Your task to perform on an android device: Do I have any events today? Image 0: 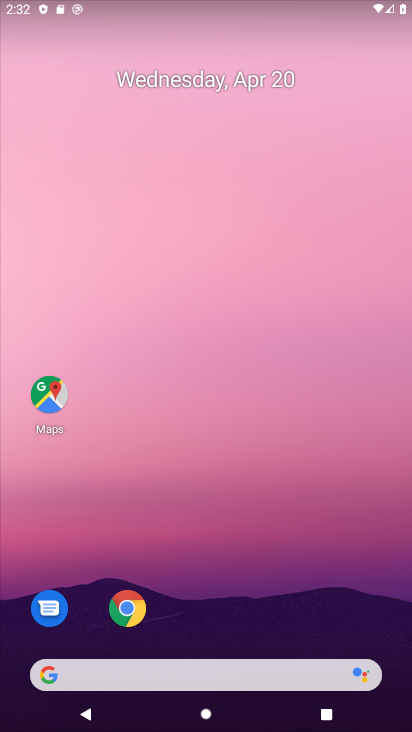
Step 0: drag from (200, 599) to (257, 219)
Your task to perform on an android device: Do I have any events today? Image 1: 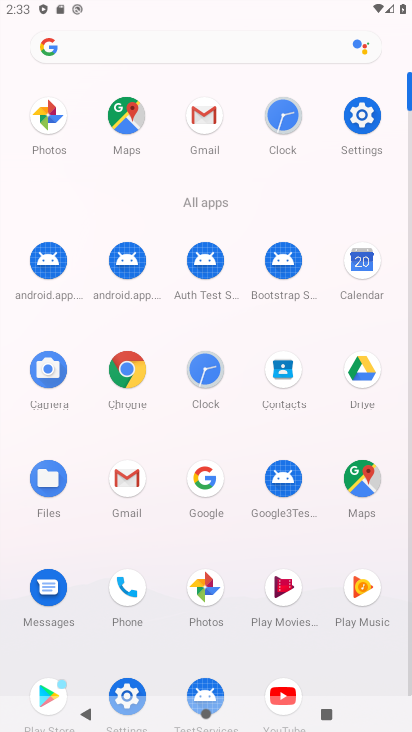
Step 1: drag from (250, 636) to (266, 327)
Your task to perform on an android device: Do I have any events today? Image 2: 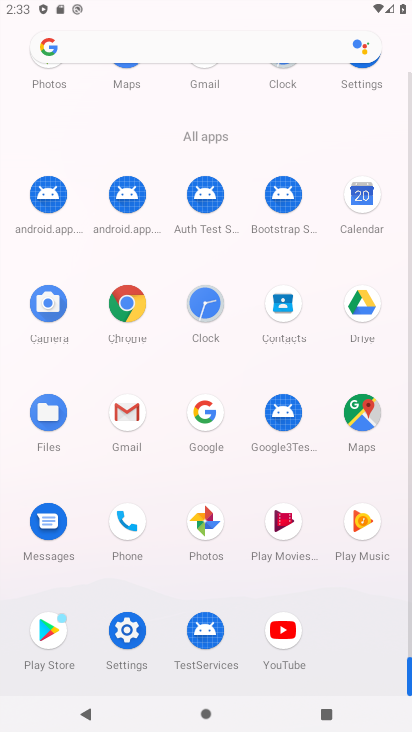
Step 2: click (352, 204)
Your task to perform on an android device: Do I have any events today? Image 3: 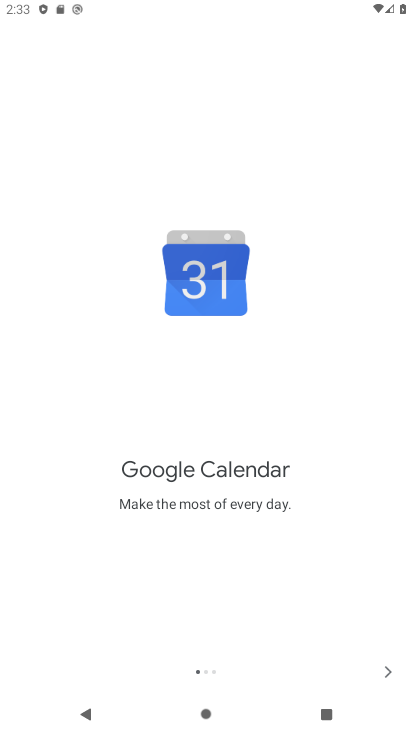
Step 3: click (375, 673)
Your task to perform on an android device: Do I have any events today? Image 4: 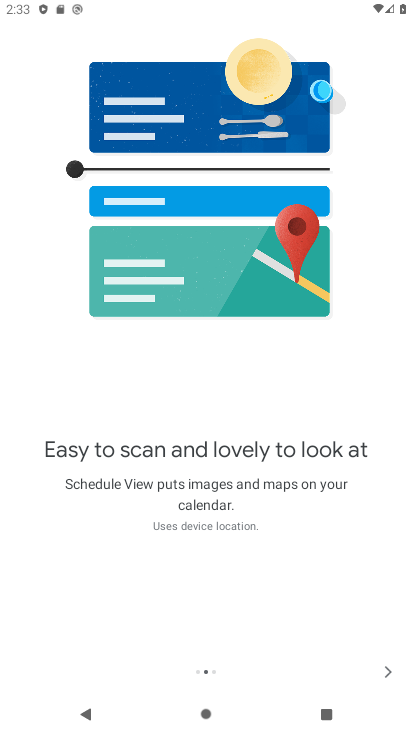
Step 4: click (388, 668)
Your task to perform on an android device: Do I have any events today? Image 5: 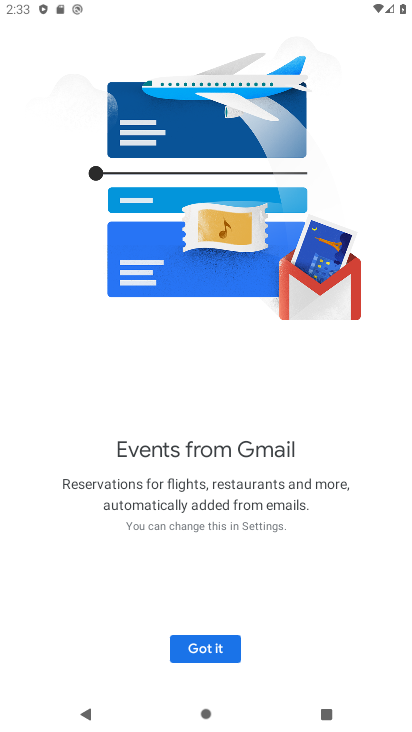
Step 5: click (214, 651)
Your task to perform on an android device: Do I have any events today? Image 6: 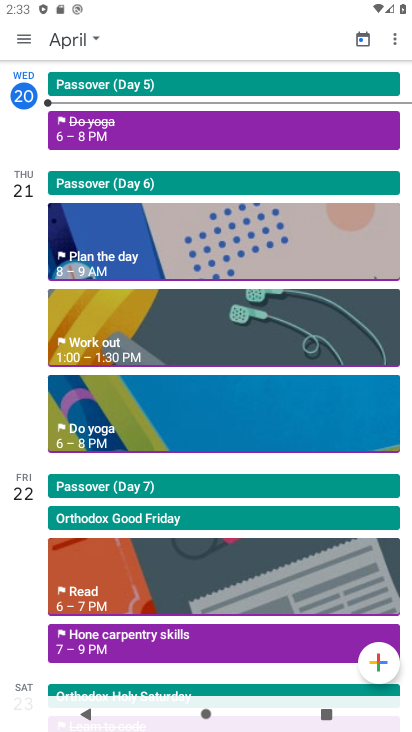
Step 6: click (82, 35)
Your task to perform on an android device: Do I have any events today? Image 7: 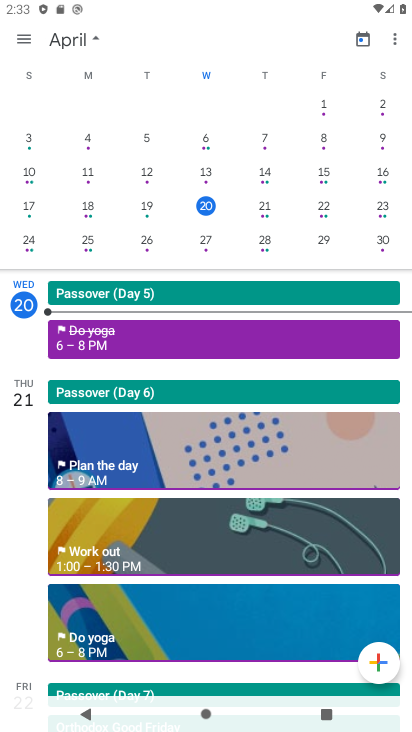
Step 7: click (211, 203)
Your task to perform on an android device: Do I have any events today? Image 8: 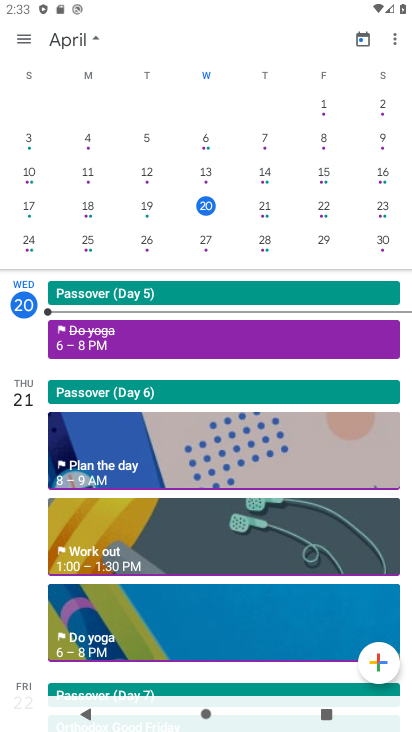
Step 8: task complete